Your task to perform on an android device: Go to privacy settings Image 0: 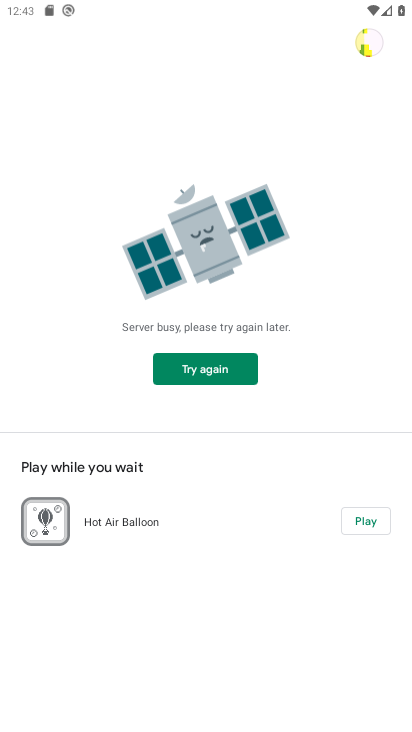
Step 0: press home button
Your task to perform on an android device: Go to privacy settings Image 1: 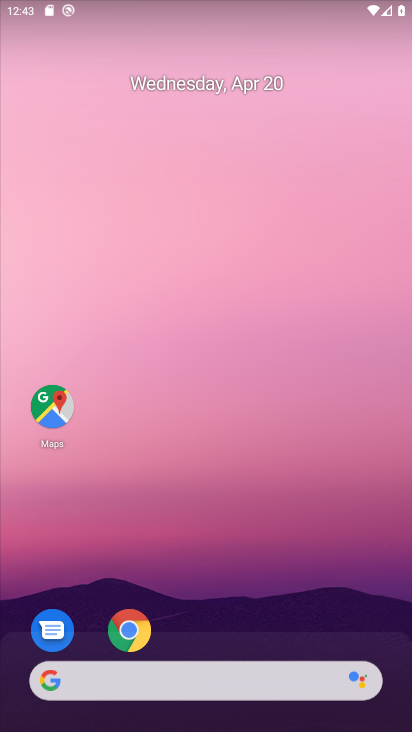
Step 1: drag from (248, 442) to (250, 175)
Your task to perform on an android device: Go to privacy settings Image 2: 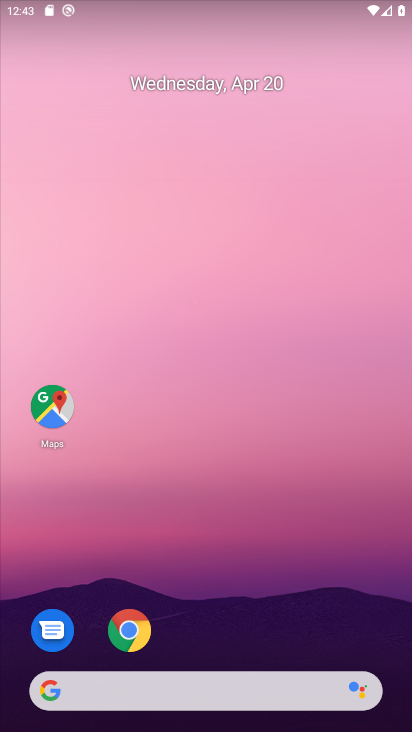
Step 2: drag from (236, 343) to (266, 128)
Your task to perform on an android device: Go to privacy settings Image 3: 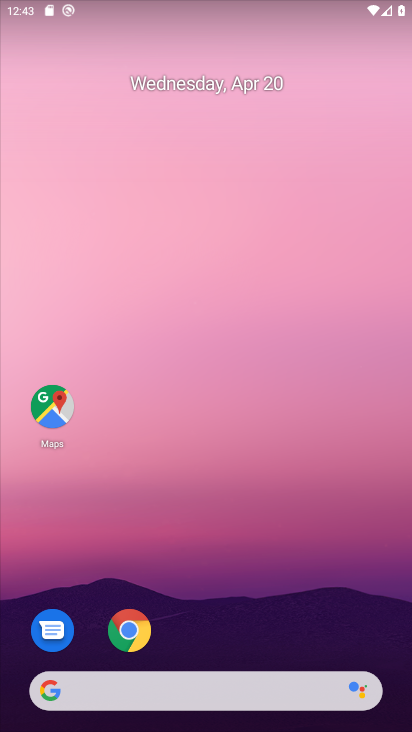
Step 3: drag from (227, 656) to (239, 67)
Your task to perform on an android device: Go to privacy settings Image 4: 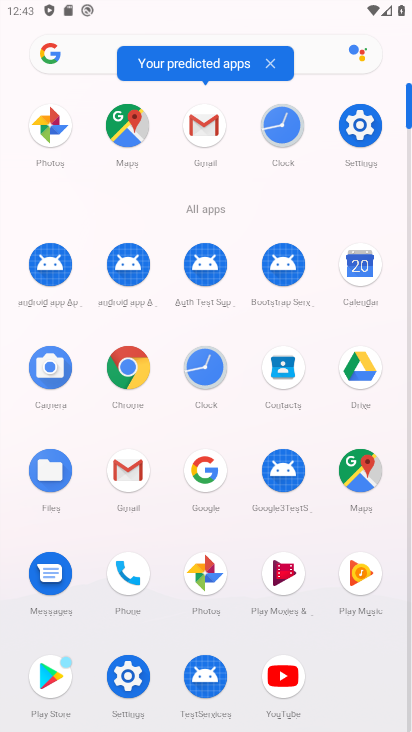
Step 4: click (351, 140)
Your task to perform on an android device: Go to privacy settings Image 5: 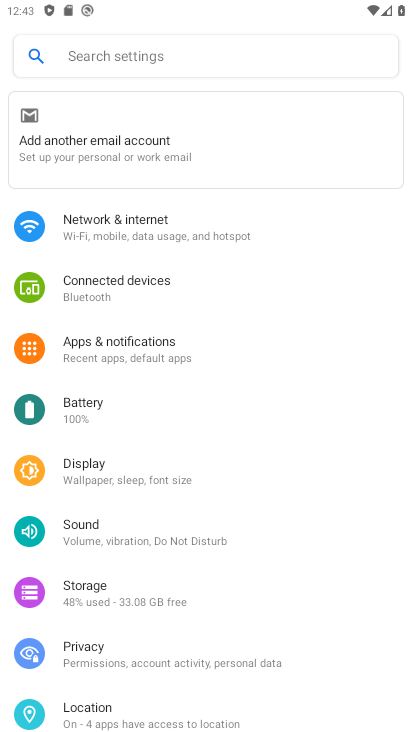
Step 5: click (154, 663)
Your task to perform on an android device: Go to privacy settings Image 6: 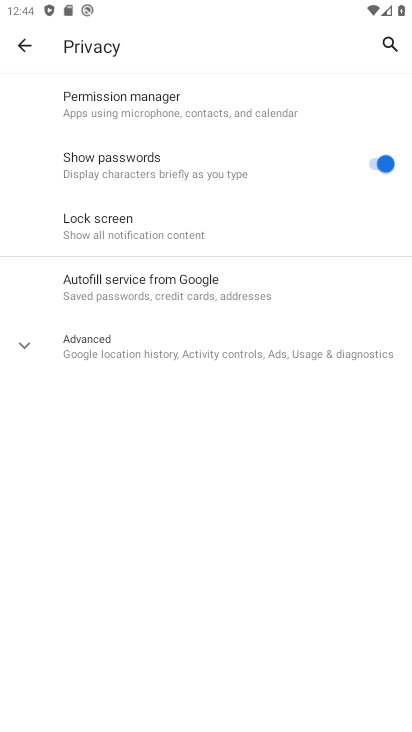
Step 6: task complete